Your task to perform on an android device: Open Chrome and go to settings Image 0: 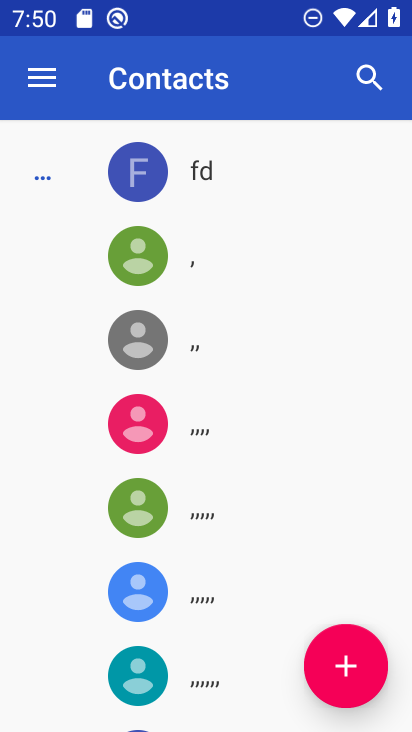
Step 0: press home button
Your task to perform on an android device: Open Chrome and go to settings Image 1: 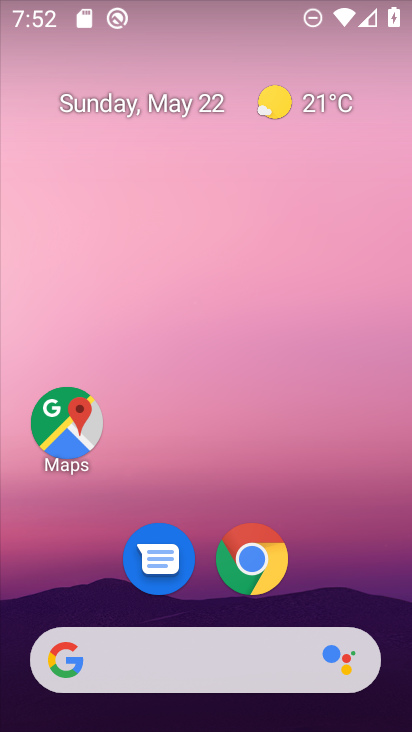
Step 1: drag from (270, 692) to (309, 176)
Your task to perform on an android device: Open Chrome and go to settings Image 2: 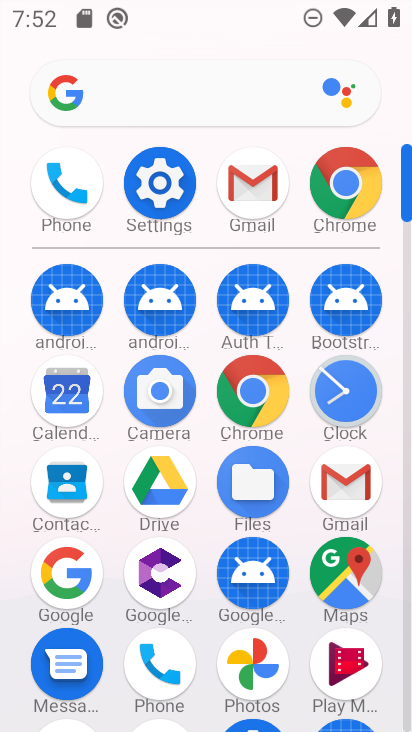
Step 2: click (154, 209)
Your task to perform on an android device: Open Chrome and go to settings Image 3: 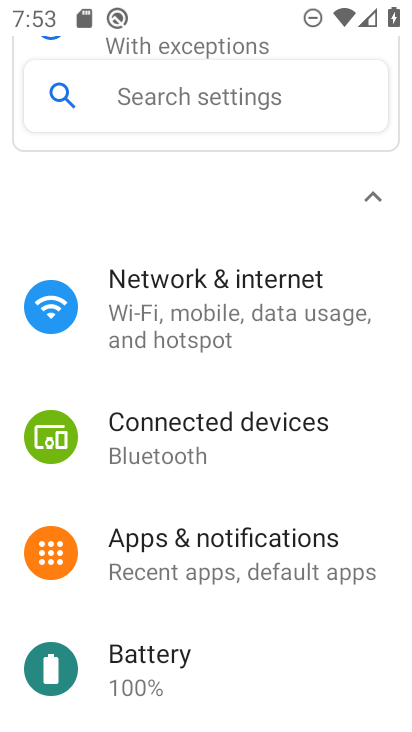
Step 3: press home button
Your task to perform on an android device: Open Chrome and go to settings Image 4: 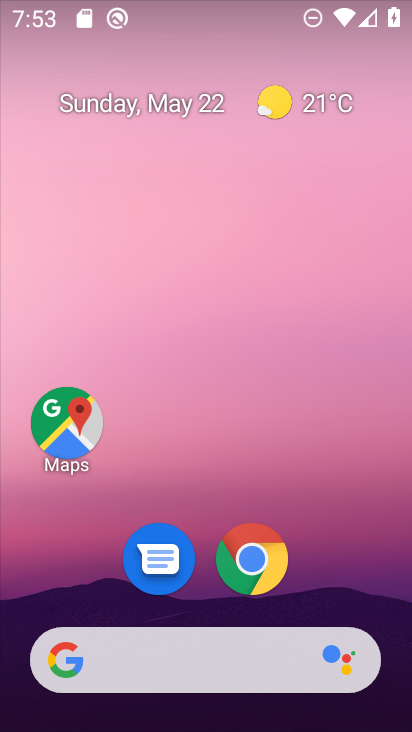
Step 4: drag from (242, 724) to (276, 213)
Your task to perform on an android device: Open Chrome and go to settings Image 5: 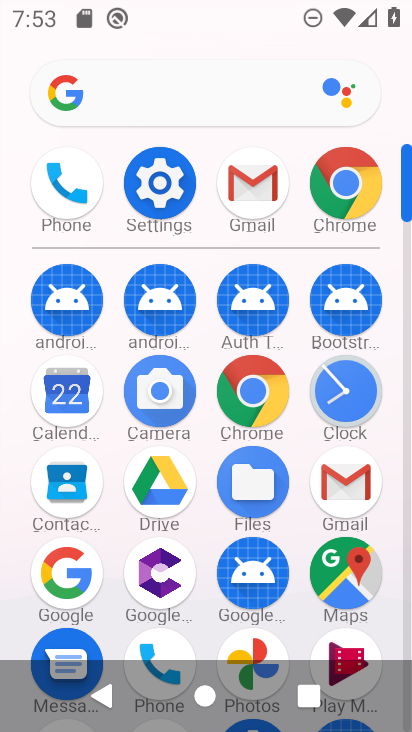
Step 5: click (371, 176)
Your task to perform on an android device: Open Chrome and go to settings Image 6: 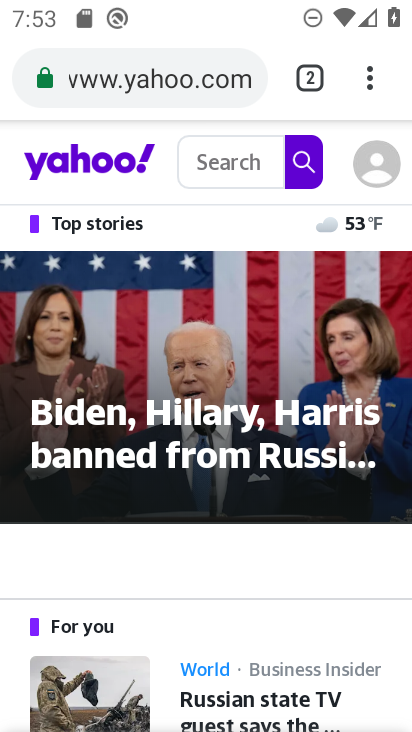
Step 6: click (371, 89)
Your task to perform on an android device: Open Chrome and go to settings Image 7: 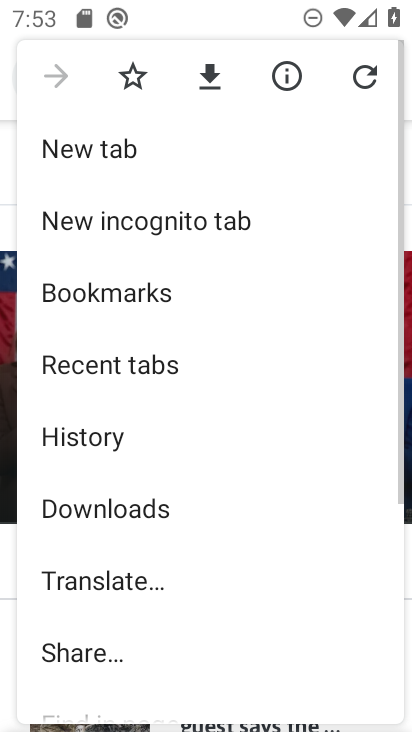
Step 7: drag from (155, 614) to (215, 295)
Your task to perform on an android device: Open Chrome and go to settings Image 8: 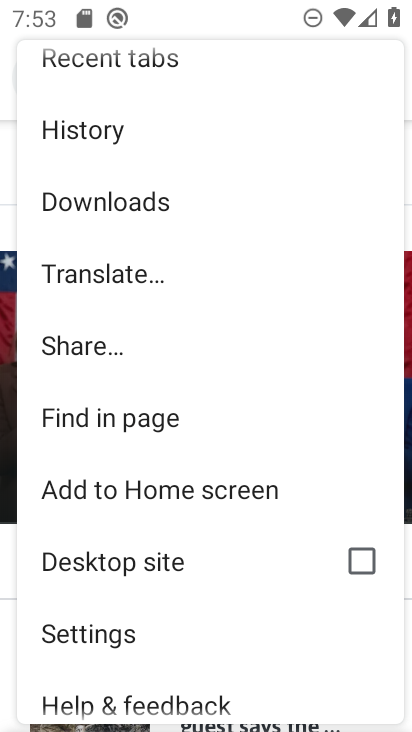
Step 8: click (145, 631)
Your task to perform on an android device: Open Chrome and go to settings Image 9: 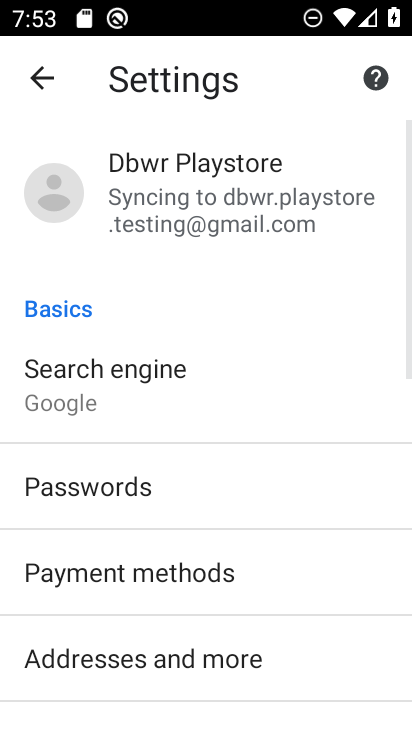
Step 9: task complete